Your task to perform on an android device: change the clock display to digital Image 0: 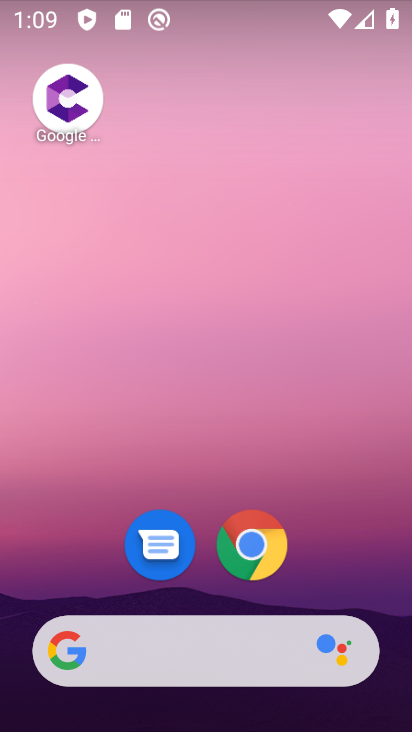
Step 0: drag from (110, 713) to (268, 46)
Your task to perform on an android device: change the clock display to digital Image 1: 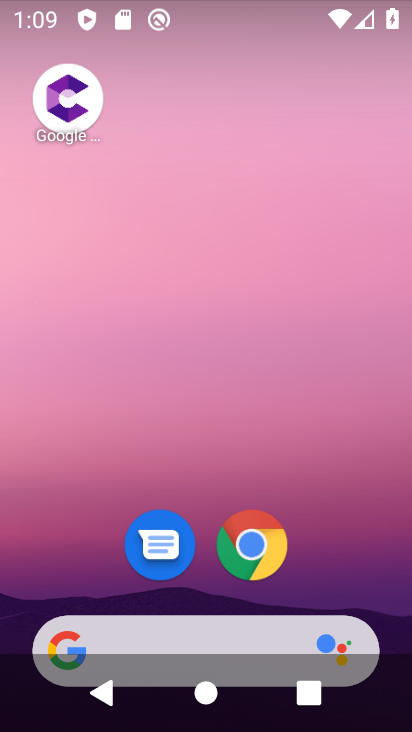
Step 1: drag from (262, 650) to (321, 48)
Your task to perform on an android device: change the clock display to digital Image 2: 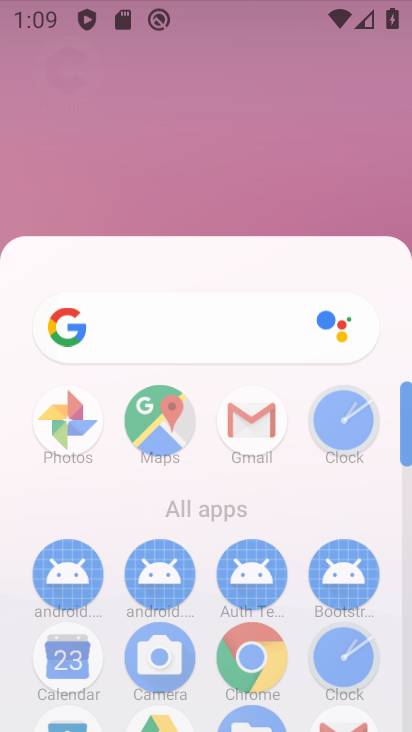
Step 2: click (258, 344)
Your task to perform on an android device: change the clock display to digital Image 3: 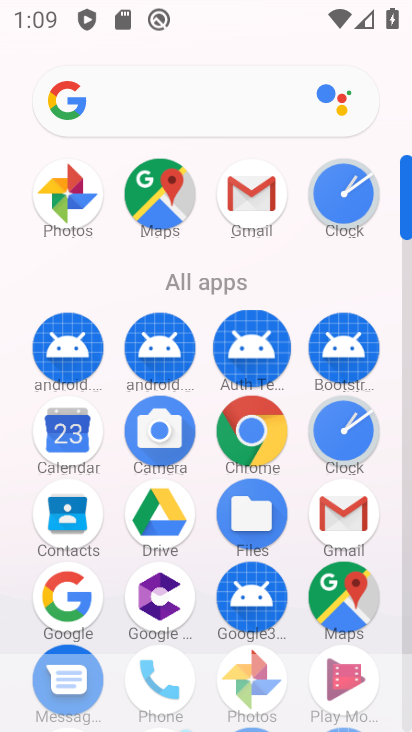
Step 3: click (349, 424)
Your task to perform on an android device: change the clock display to digital Image 4: 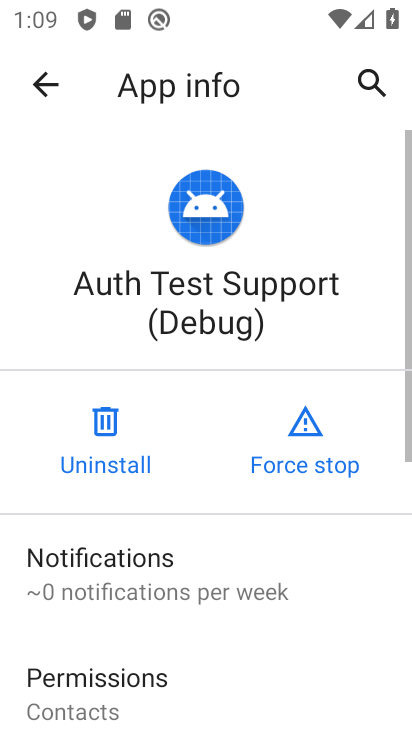
Step 4: press home button
Your task to perform on an android device: change the clock display to digital Image 5: 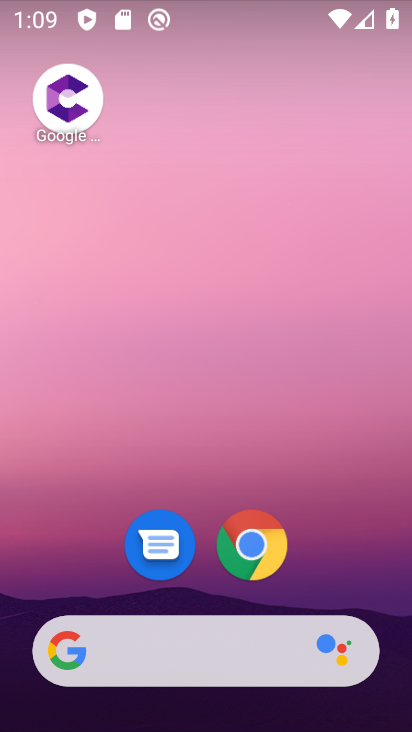
Step 5: drag from (229, 716) to (254, 109)
Your task to perform on an android device: change the clock display to digital Image 6: 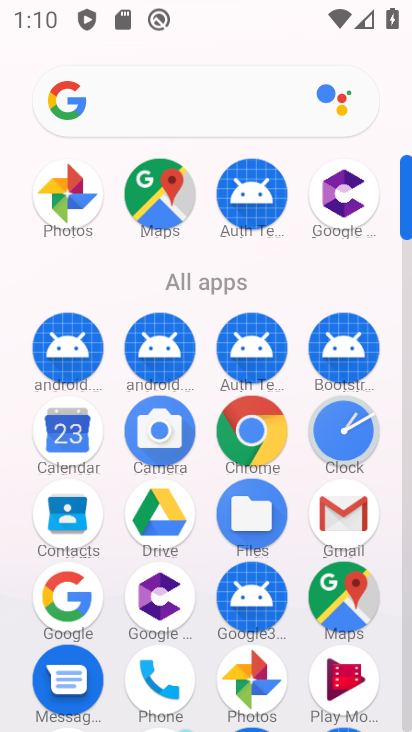
Step 6: click (353, 436)
Your task to perform on an android device: change the clock display to digital Image 7: 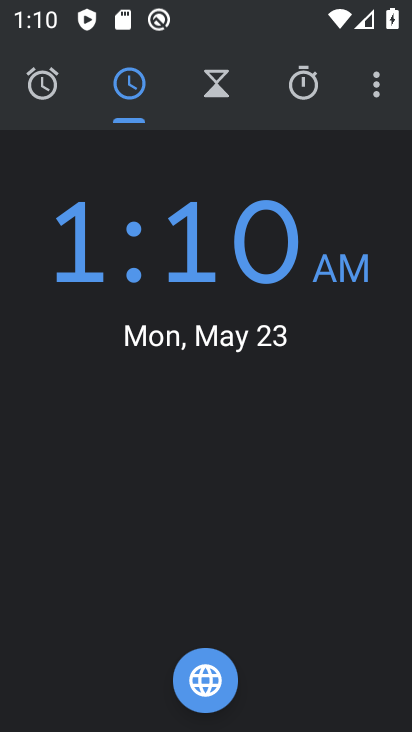
Step 7: click (374, 91)
Your task to perform on an android device: change the clock display to digital Image 8: 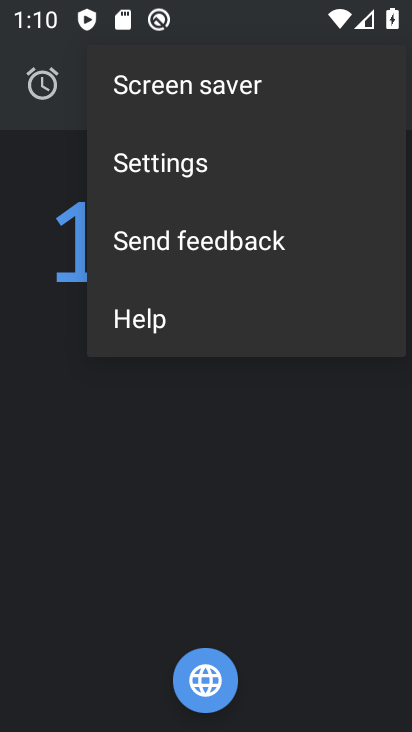
Step 8: click (256, 165)
Your task to perform on an android device: change the clock display to digital Image 9: 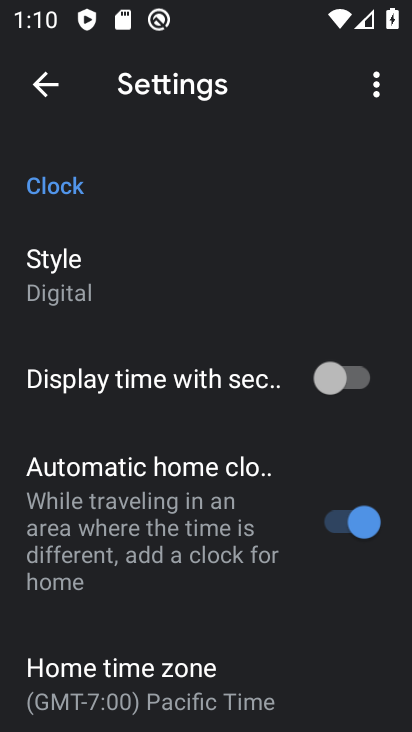
Step 9: click (181, 292)
Your task to perform on an android device: change the clock display to digital Image 10: 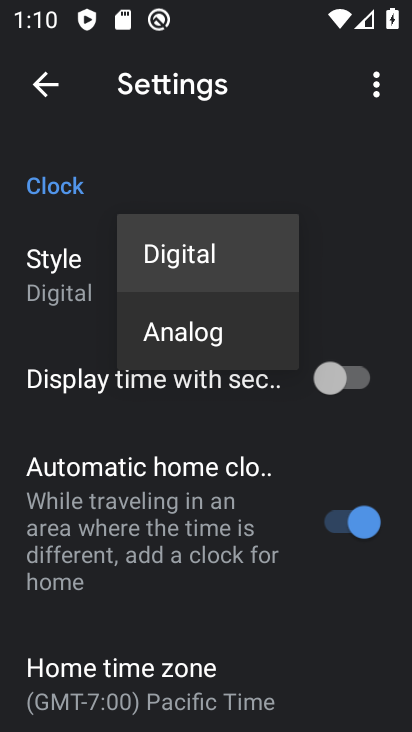
Step 10: task complete